Your task to perform on an android device: Search for cool wooden wall art on Etsy. Image 0: 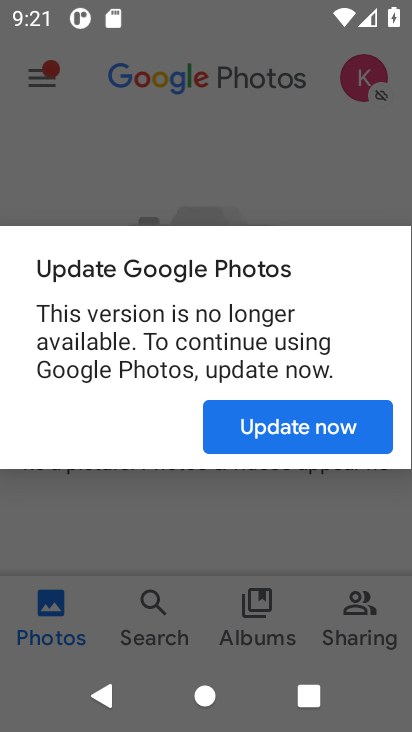
Step 0: click (307, 436)
Your task to perform on an android device: Search for cool wooden wall art on Etsy. Image 1: 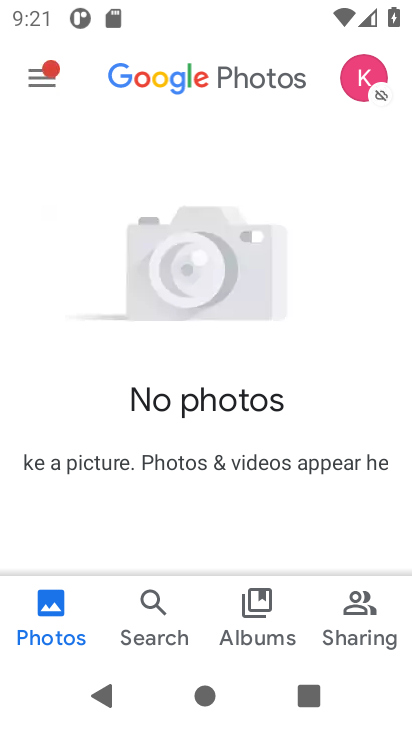
Step 1: task complete